Your task to perform on an android device: turn on showing notifications on the lock screen Image 0: 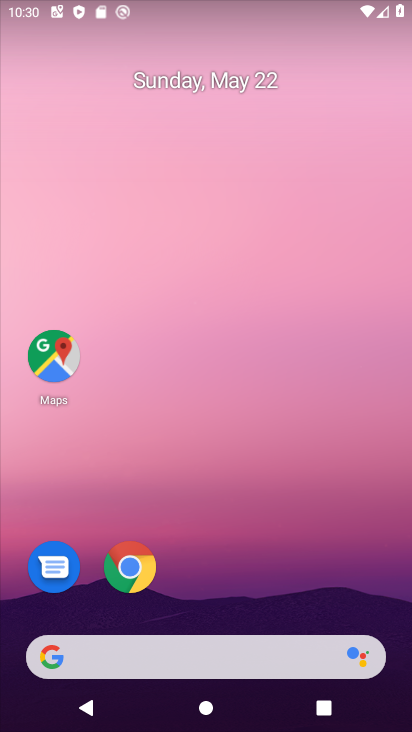
Step 0: drag from (234, 536) to (177, 9)
Your task to perform on an android device: turn on showing notifications on the lock screen Image 1: 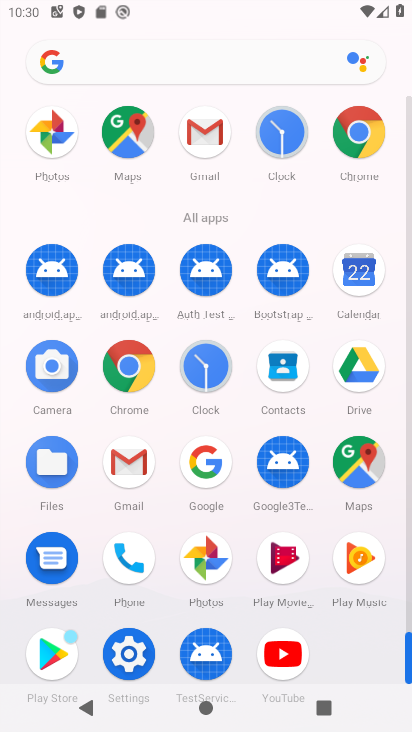
Step 1: drag from (12, 579) to (12, 256)
Your task to perform on an android device: turn on showing notifications on the lock screen Image 2: 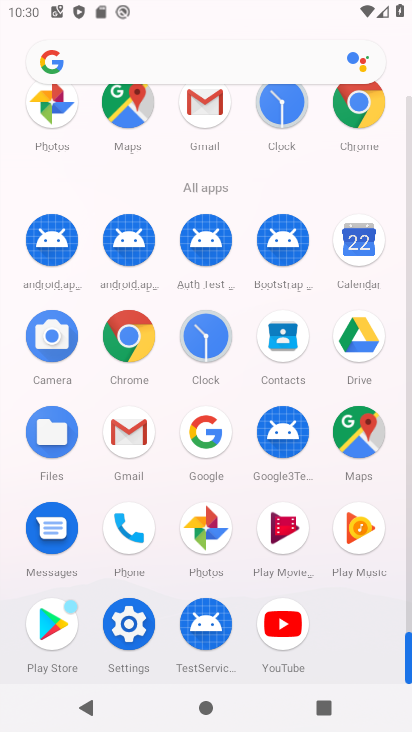
Step 2: click (125, 623)
Your task to perform on an android device: turn on showing notifications on the lock screen Image 3: 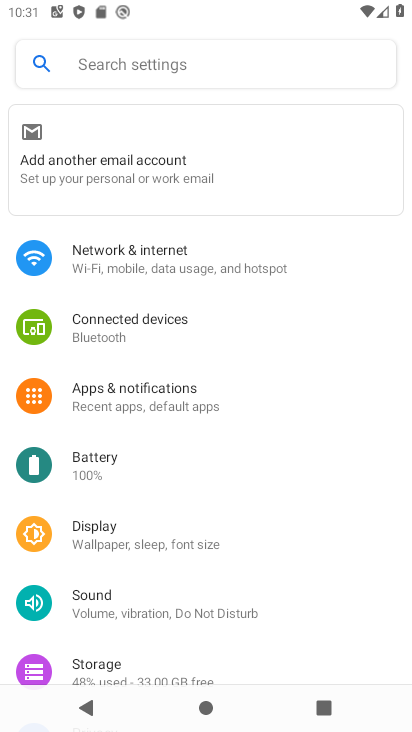
Step 3: click (170, 385)
Your task to perform on an android device: turn on showing notifications on the lock screen Image 4: 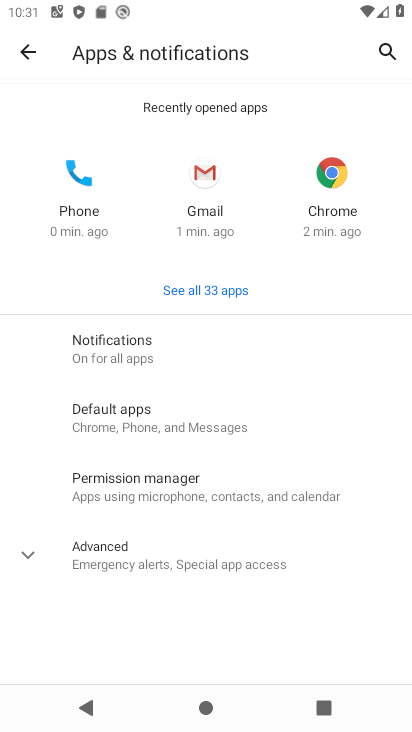
Step 4: click (31, 558)
Your task to perform on an android device: turn on showing notifications on the lock screen Image 5: 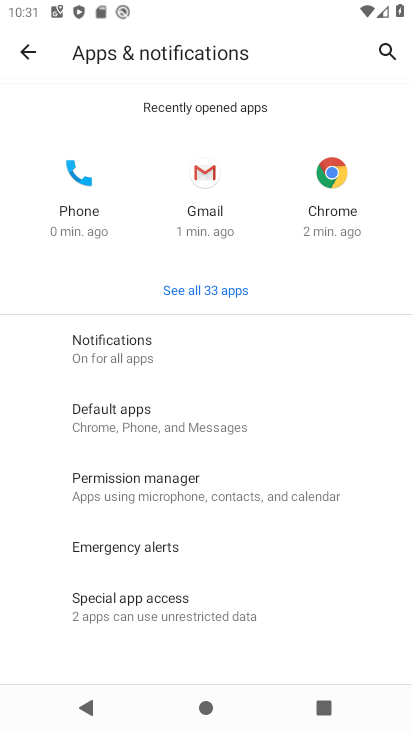
Step 5: click (205, 356)
Your task to perform on an android device: turn on showing notifications on the lock screen Image 6: 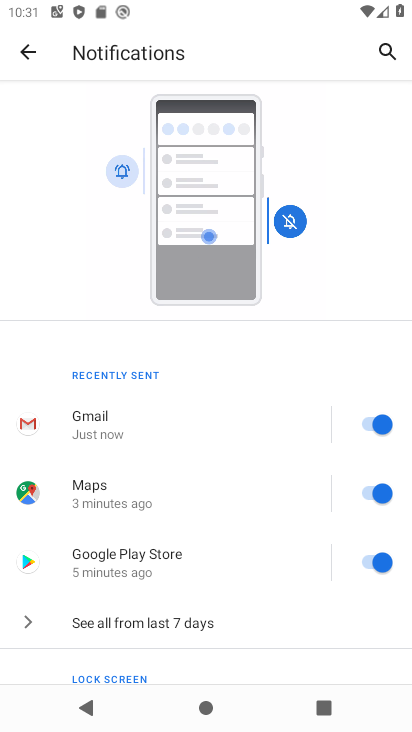
Step 6: drag from (237, 592) to (285, 88)
Your task to perform on an android device: turn on showing notifications on the lock screen Image 7: 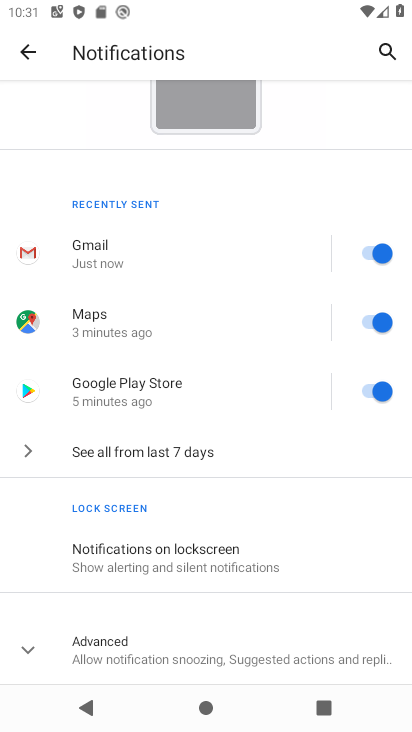
Step 7: click (245, 558)
Your task to perform on an android device: turn on showing notifications on the lock screen Image 8: 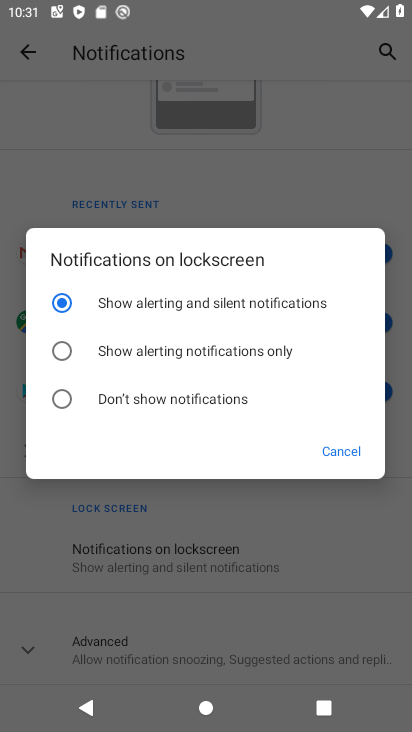
Step 8: click (186, 306)
Your task to perform on an android device: turn on showing notifications on the lock screen Image 9: 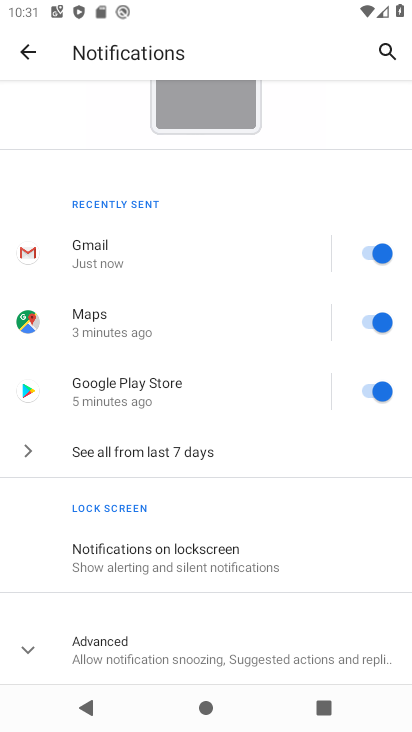
Step 9: task complete